Your task to perform on an android device: Set the phone to "Do not disturb". Image 0: 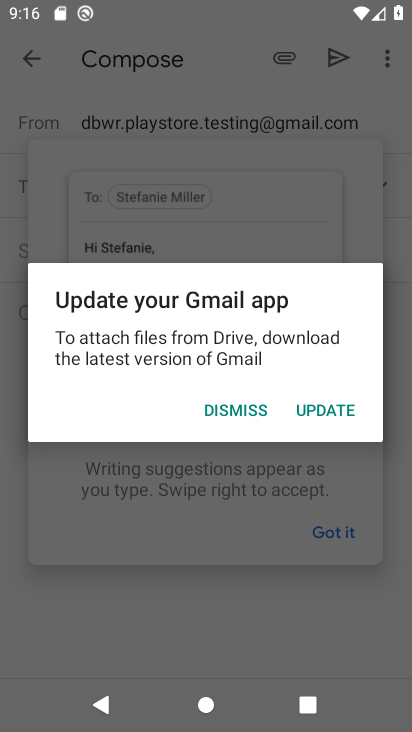
Step 0: press home button
Your task to perform on an android device: Set the phone to "Do not disturb". Image 1: 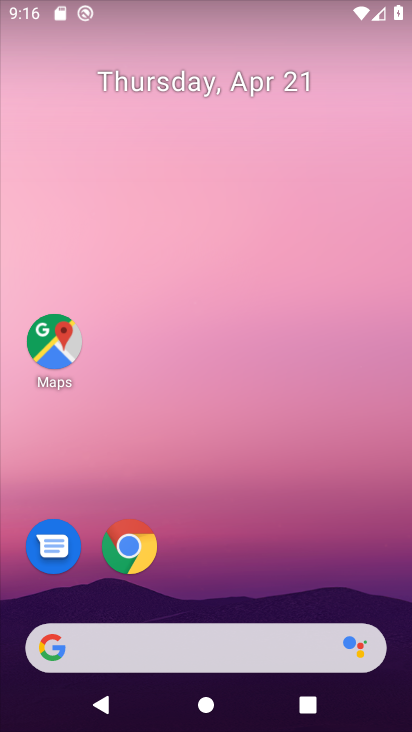
Step 1: drag from (366, 517) to (368, 40)
Your task to perform on an android device: Set the phone to "Do not disturb". Image 2: 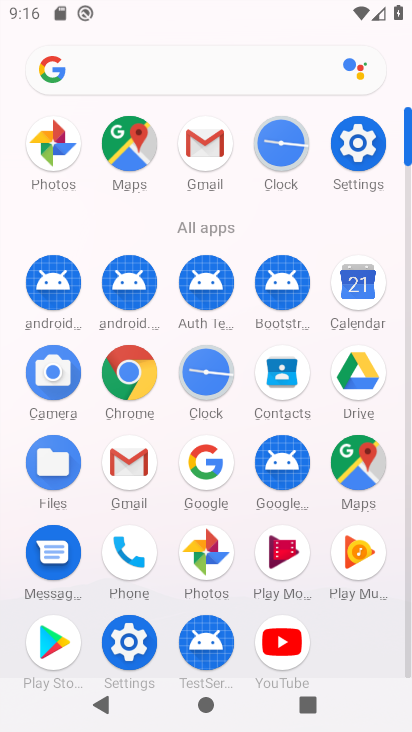
Step 2: click (365, 142)
Your task to perform on an android device: Set the phone to "Do not disturb". Image 3: 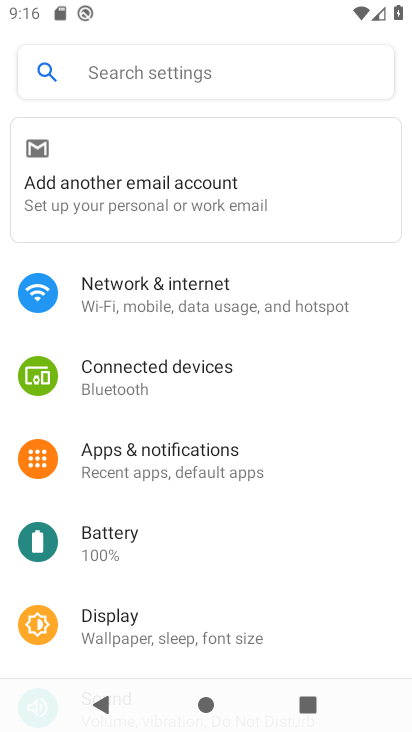
Step 3: drag from (359, 542) to (378, 320)
Your task to perform on an android device: Set the phone to "Do not disturb". Image 4: 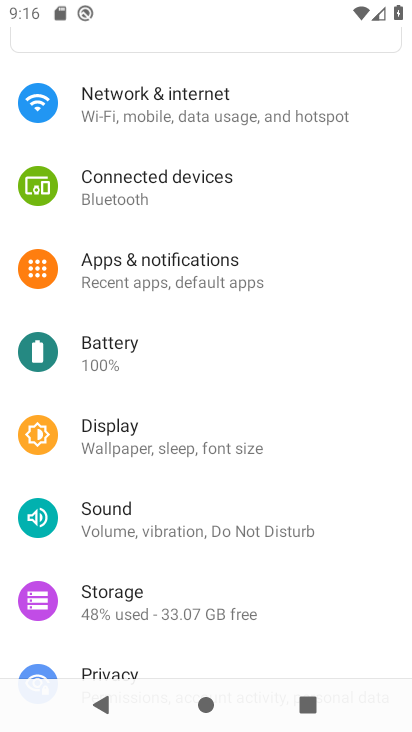
Step 4: drag from (352, 552) to (352, 225)
Your task to perform on an android device: Set the phone to "Do not disturb". Image 5: 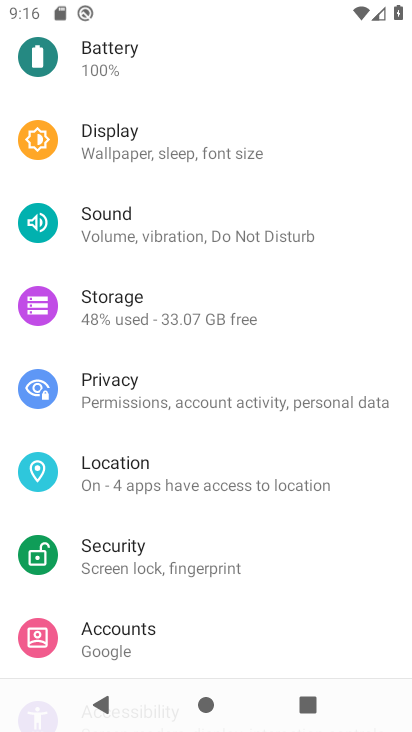
Step 5: click (247, 243)
Your task to perform on an android device: Set the phone to "Do not disturb". Image 6: 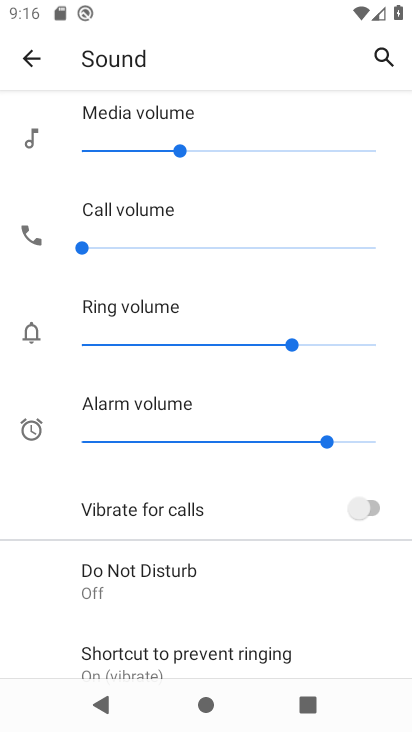
Step 6: drag from (324, 545) to (349, 295)
Your task to perform on an android device: Set the phone to "Do not disturb". Image 7: 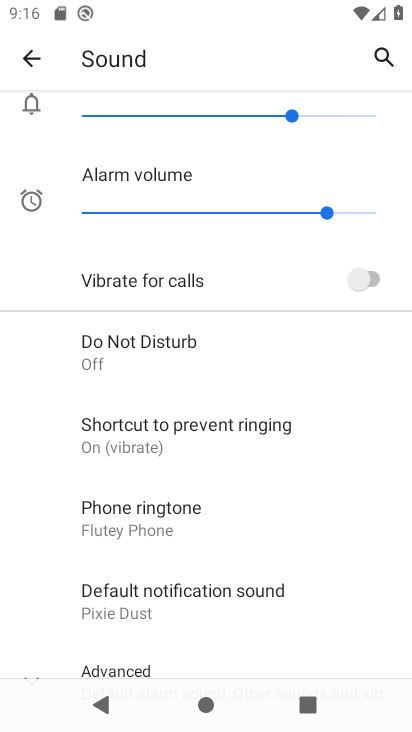
Step 7: click (156, 378)
Your task to perform on an android device: Set the phone to "Do not disturb". Image 8: 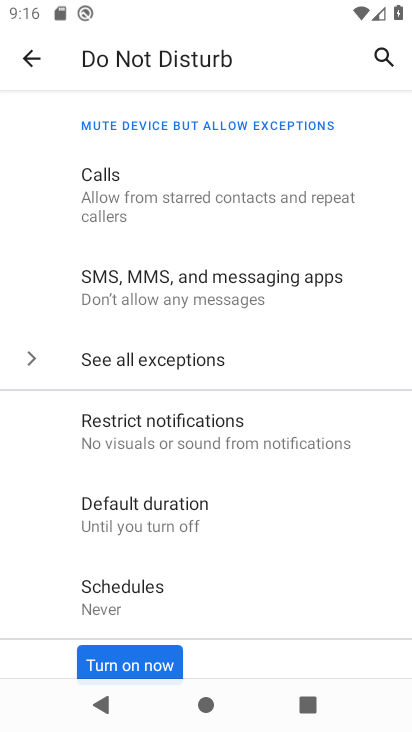
Step 8: click (137, 667)
Your task to perform on an android device: Set the phone to "Do not disturb". Image 9: 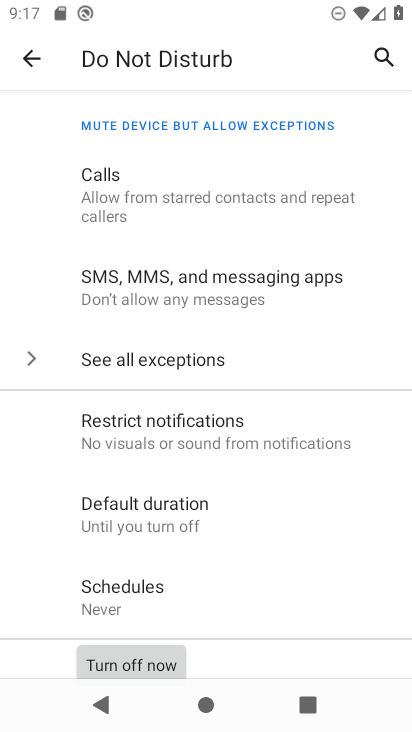
Step 9: task complete